Your task to perform on an android device: Toggle the flashlight Image 0: 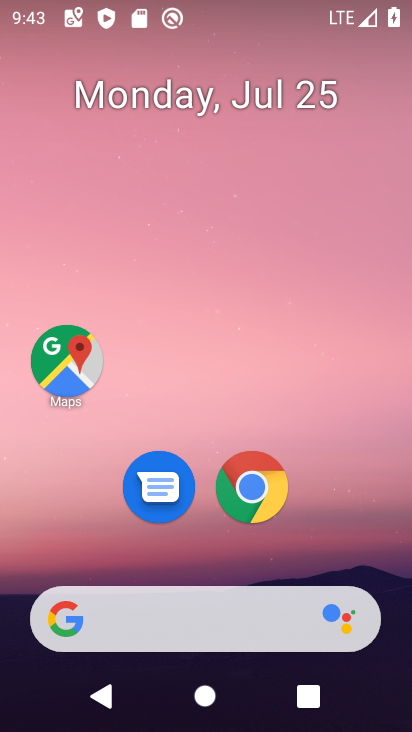
Step 0: drag from (208, 563) to (319, 19)
Your task to perform on an android device: Toggle the flashlight Image 1: 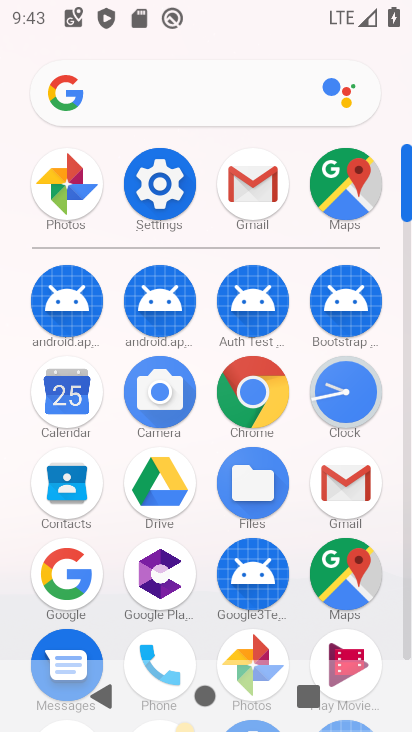
Step 1: click (167, 185)
Your task to perform on an android device: Toggle the flashlight Image 2: 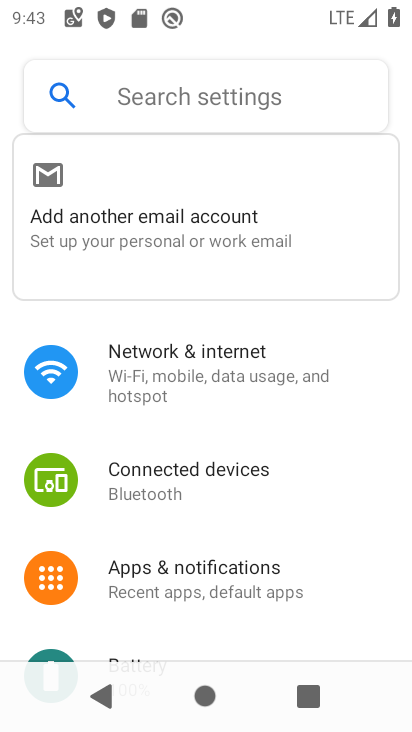
Step 2: click (185, 88)
Your task to perform on an android device: Toggle the flashlight Image 3: 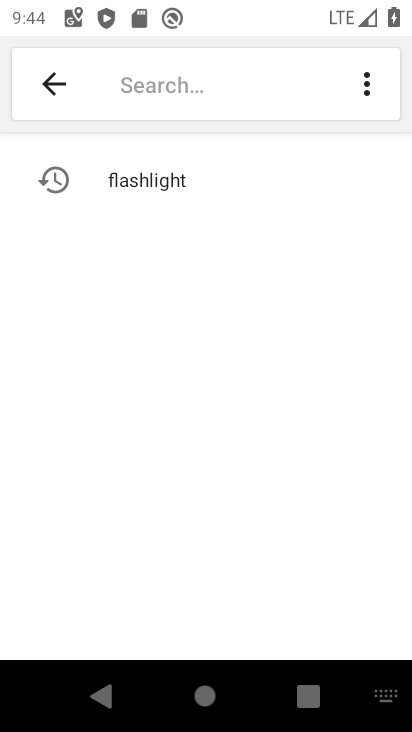
Step 3: type "flash"
Your task to perform on an android device: Toggle the flashlight Image 4: 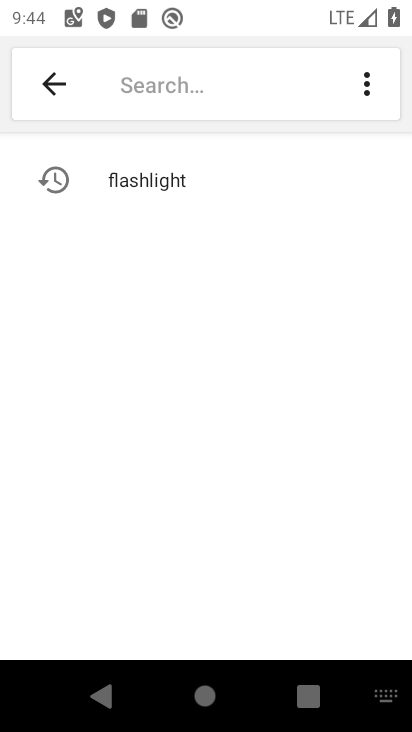
Step 4: click (159, 193)
Your task to perform on an android device: Toggle the flashlight Image 5: 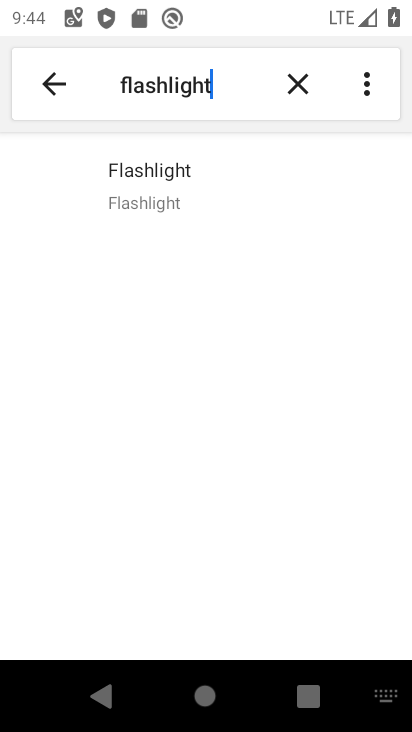
Step 5: task complete